Your task to perform on an android device: find which apps use the phone's location Image 0: 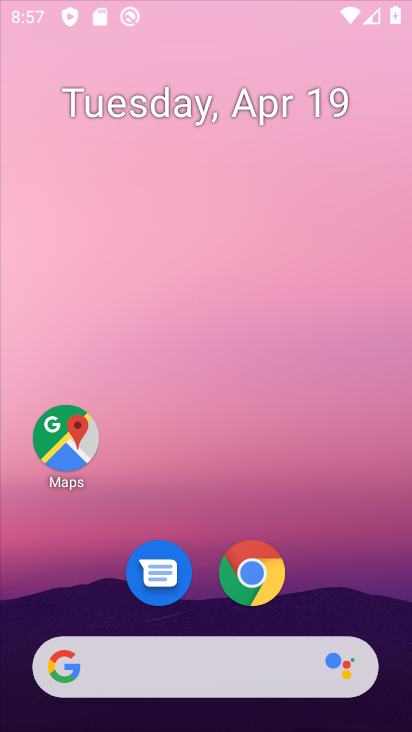
Step 0: drag from (207, 500) to (191, 72)
Your task to perform on an android device: find which apps use the phone's location Image 1: 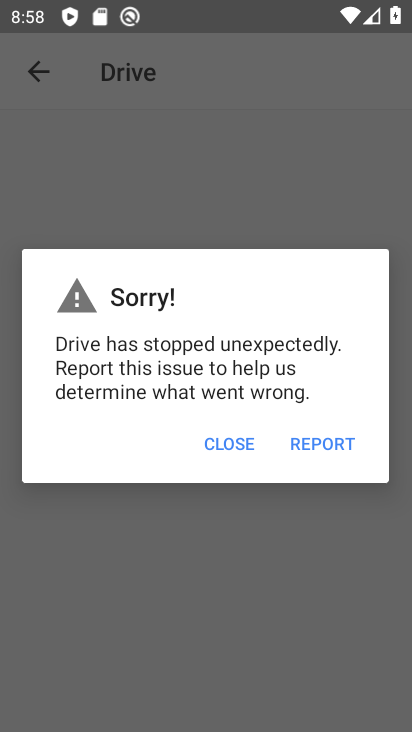
Step 1: press home button
Your task to perform on an android device: find which apps use the phone's location Image 2: 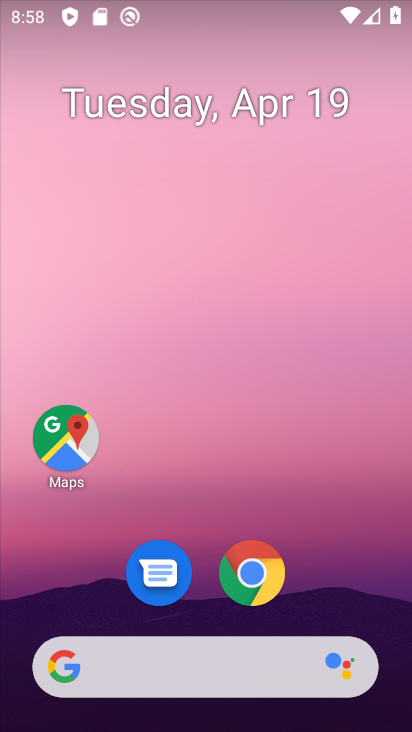
Step 2: drag from (216, 506) to (241, 3)
Your task to perform on an android device: find which apps use the phone's location Image 3: 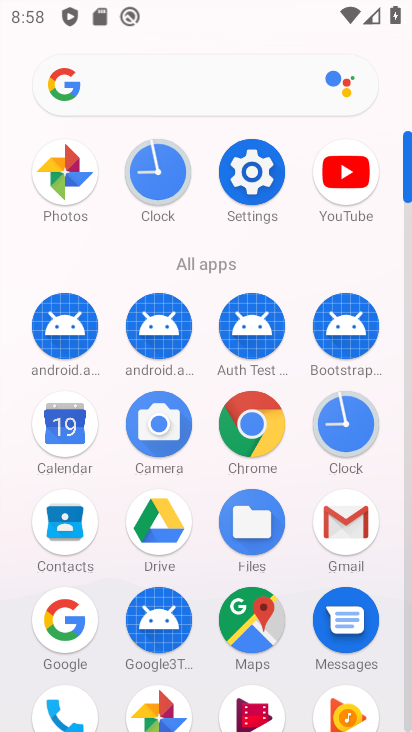
Step 3: click (251, 186)
Your task to perform on an android device: find which apps use the phone's location Image 4: 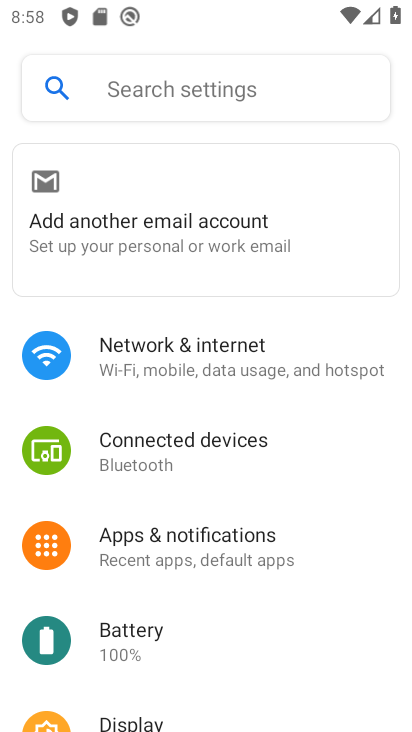
Step 4: drag from (220, 649) to (172, 113)
Your task to perform on an android device: find which apps use the phone's location Image 5: 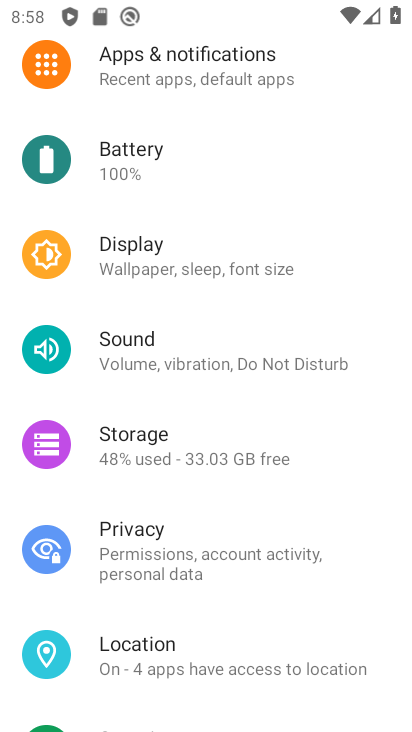
Step 5: click (145, 658)
Your task to perform on an android device: find which apps use the phone's location Image 6: 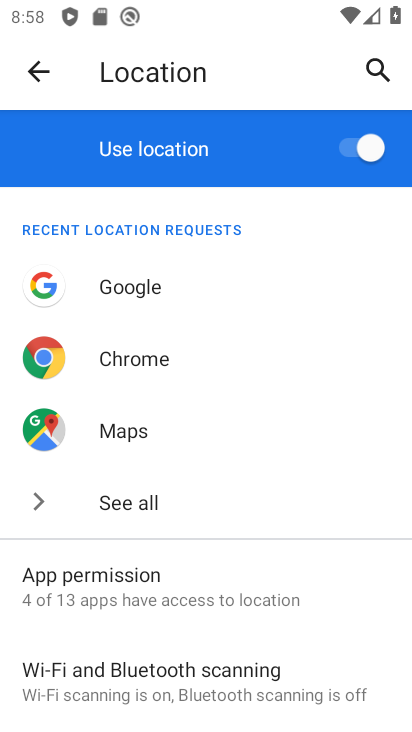
Step 6: click (171, 593)
Your task to perform on an android device: find which apps use the phone's location Image 7: 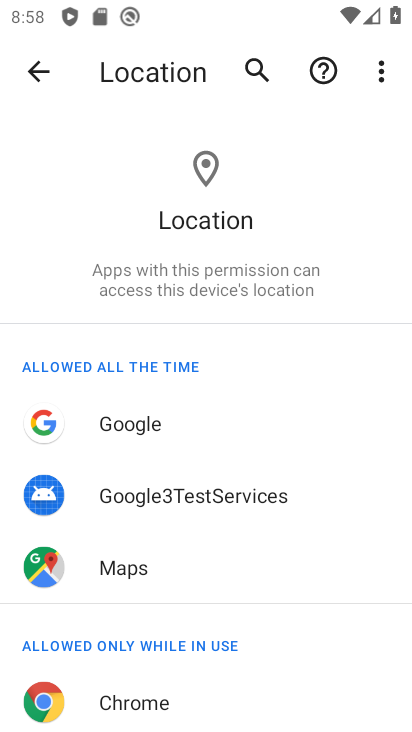
Step 7: task complete